Your task to perform on an android device: add a contact Image 0: 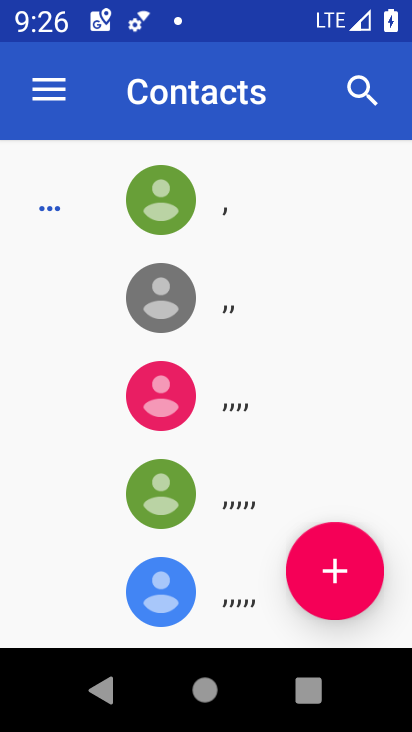
Step 0: click (332, 576)
Your task to perform on an android device: add a contact Image 1: 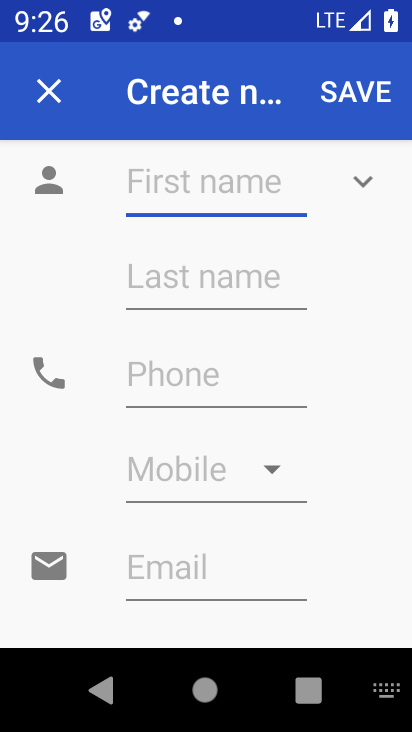
Step 1: type "nbgffd"
Your task to perform on an android device: add a contact Image 2: 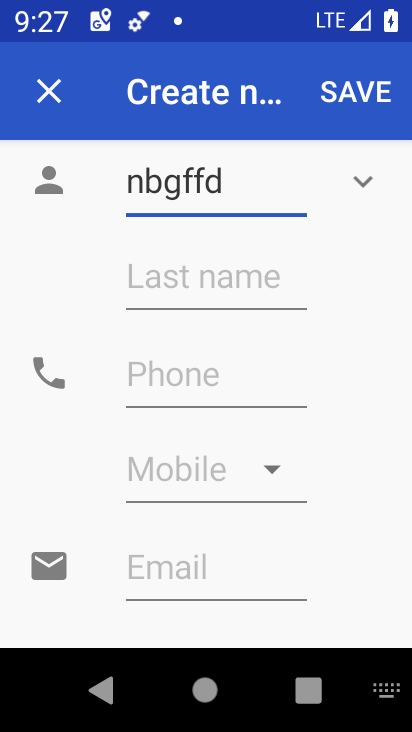
Step 2: click (356, 89)
Your task to perform on an android device: add a contact Image 3: 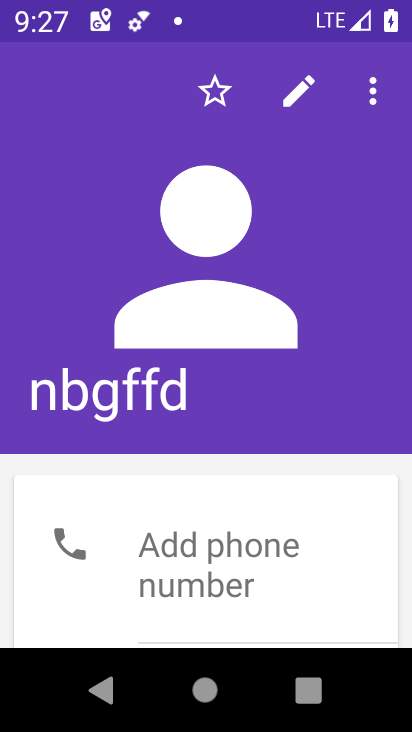
Step 3: task complete